Your task to perform on an android device: Open the Play Movies app and select the watchlist tab. Image 0: 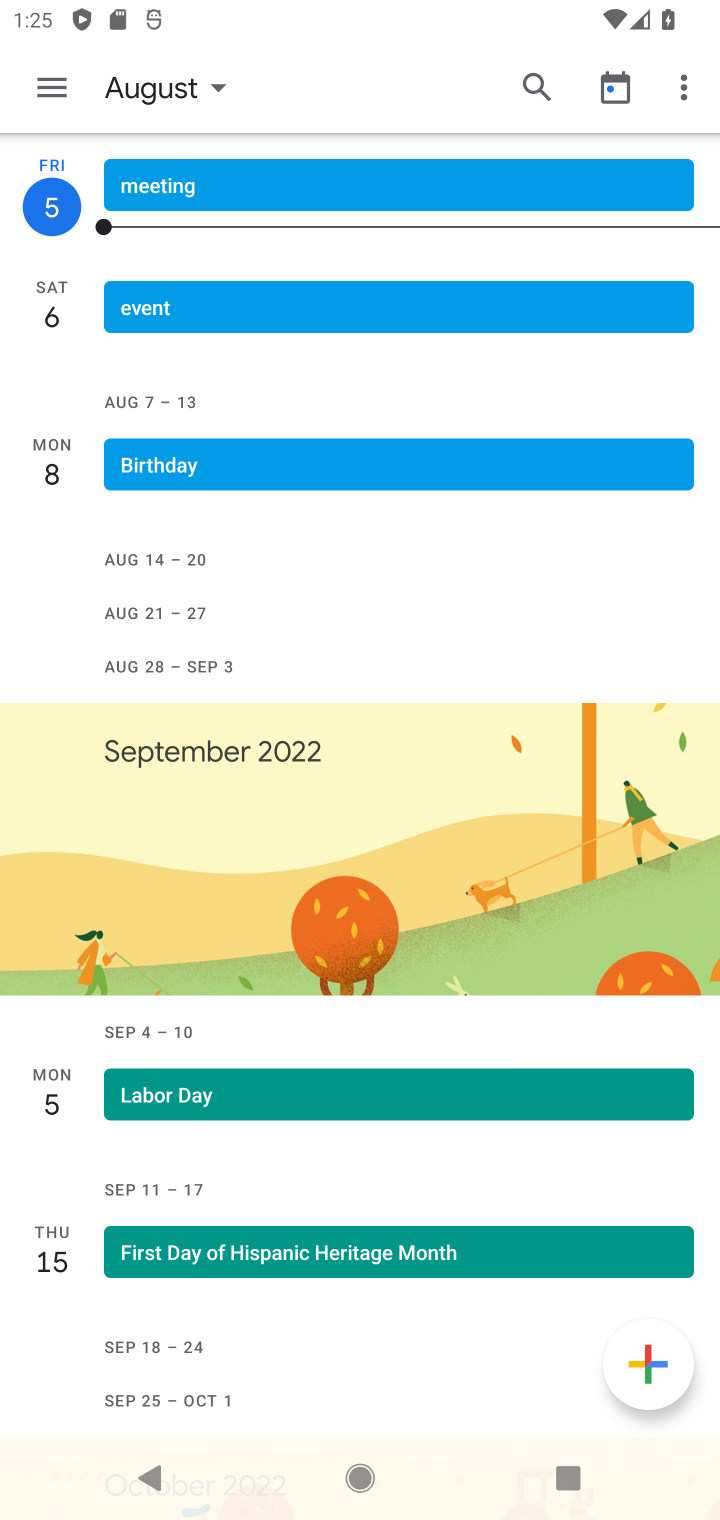
Step 0: press home button
Your task to perform on an android device: Open the Play Movies app and select the watchlist tab. Image 1: 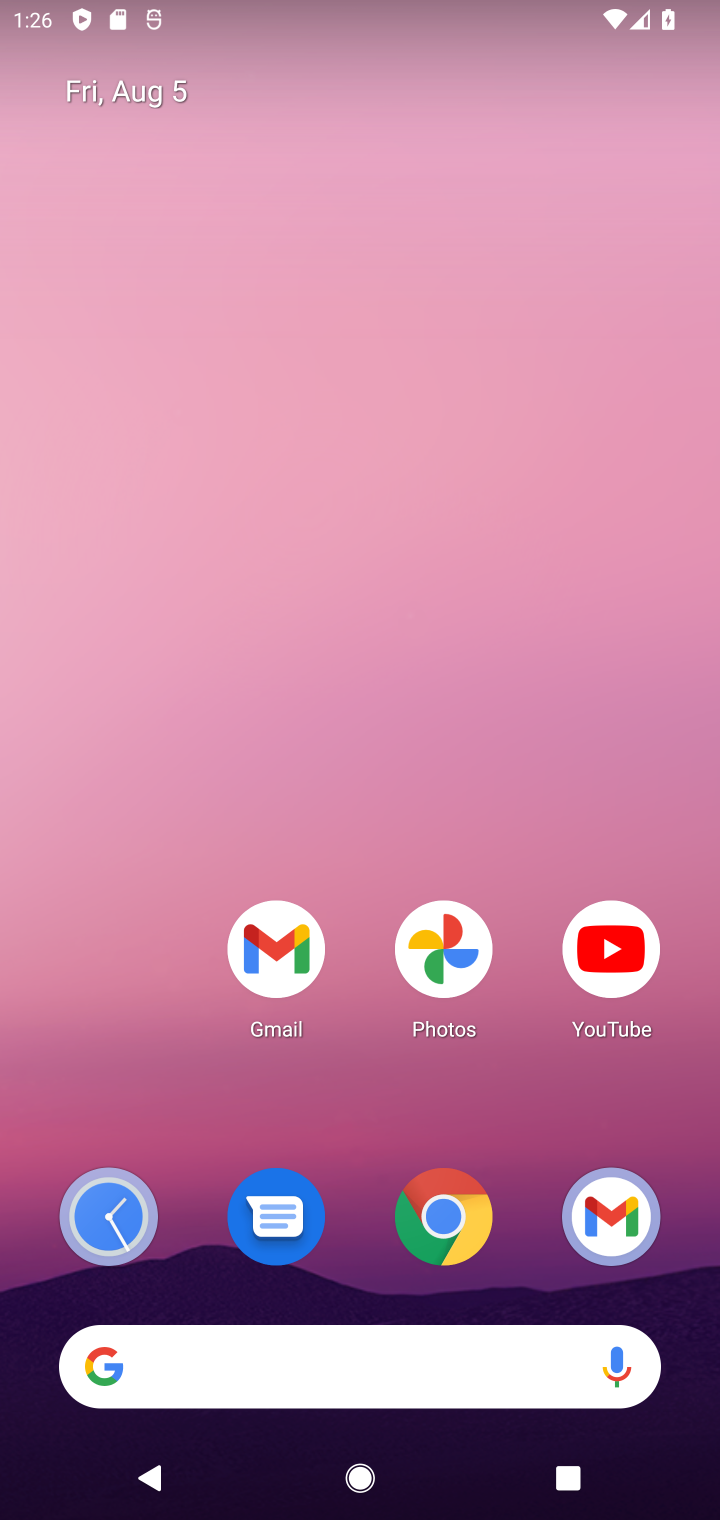
Step 1: task complete